Your task to perform on an android device: View the shopping cart on bestbuy. Search for "macbook" on bestbuy, select the first entry, and add it to the cart. Image 0: 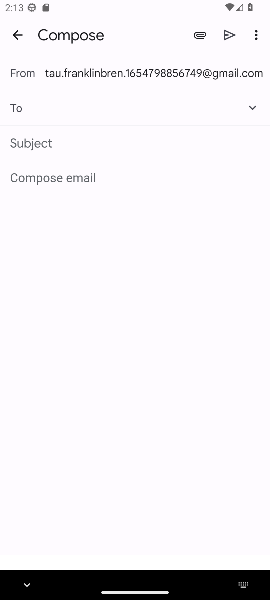
Step 0: press home button
Your task to perform on an android device: View the shopping cart on bestbuy. Search for "macbook" on bestbuy, select the first entry, and add it to the cart. Image 1: 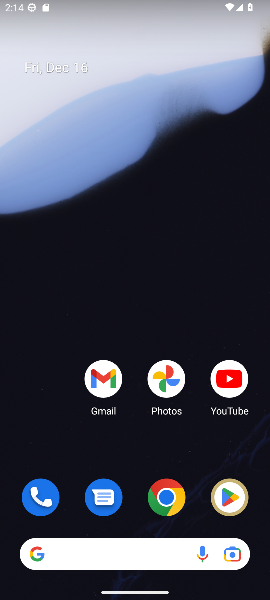
Step 1: click (176, 483)
Your task to perform on an android device: View the shopping cart on bestbuy. Search for "macbook" on bestbuy, select the first entry, and add it to the cart. Image 2: 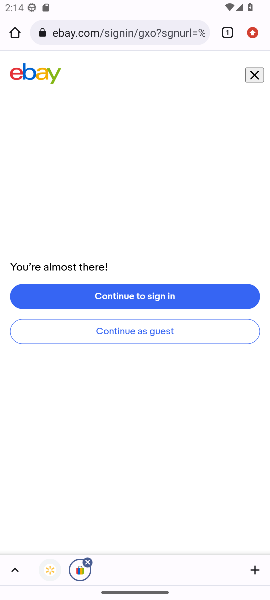
Step 2: click (157, 37)
Your task to perform on an android device: View the shopping cart on bestbuy. Search for "macbook" on bestbuy, select the first entry, and add it to the cart. Image 3: 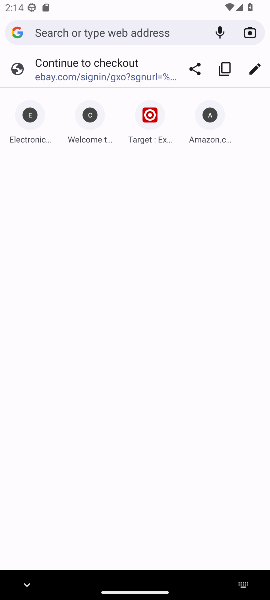
Step 3: type "bestbuy"
Your task to perform on an android device: View the shopping cart on bestbuy. Search for "macbook" on bestbuy, select the first entry, and add it to the cart. Image 4: 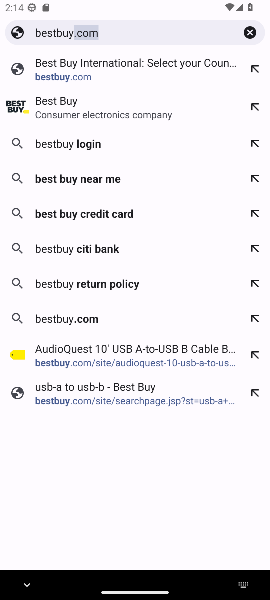
Step 4: click (109, 69)
Your task to perform on an android device: View the shopping cart on bestbuy. Search for "macbook" on bestbuy, select the first entry, and add it to the cart. Image 5: 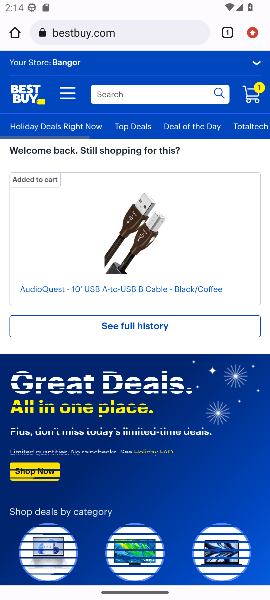
Step 5: click (162, 94)
Your task to perform on an android device: View the shopping cart on bestbuy. Search for "macbook" on bestbuy, select the first entry, and add it to the cart. Image 6: 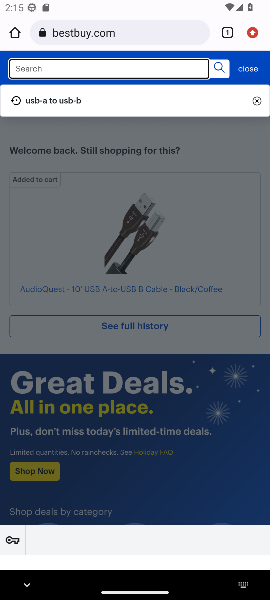
Step 6: click (109, 70)
Your task to perform on an android device: View the shopping cart on bestbuy. Search for "macbook" on bestbuy, select the first entry, and add it to the cart. Image 7: 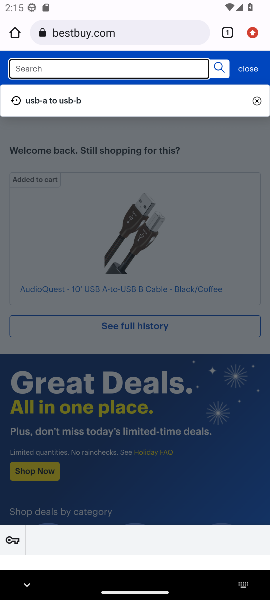
Step 7: type "macbook"
Your task to perform on an android device: View the shopping cart on bestbuy. Search for "macbook" on bestbuy, select the first entry, and add it to the cart. Image 8: 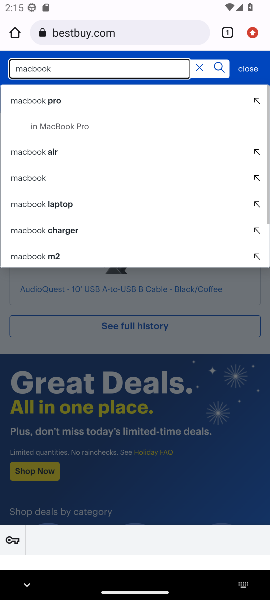
Step 8: click (41, 100)
Your task to perform on an android device: View the shopping cart on bestbuy. Search for "macbook" on bestbuy, select the first entry, and add it to the cart. Image 9: 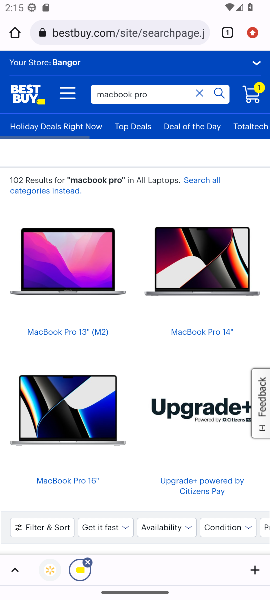
Step 9: click (73, 276)
Your task to perform on an android device: View the shopping cart on bestbuy. Search for "macbook" on bestbuy, select the first entry, and add it to the cart. Image 10: 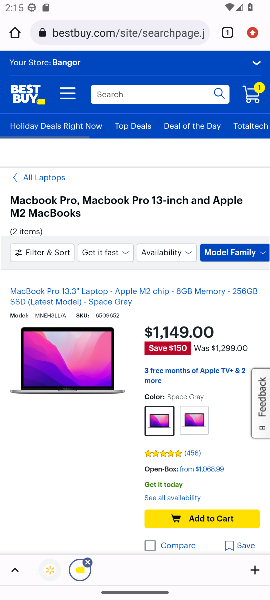
Step 10: click (215, 516)
Your task to perform on an android device: View the shopping cart on bestbuy. Search for "macbook" on bestbuy, select the first entry, and add it to the cart. Image 11: 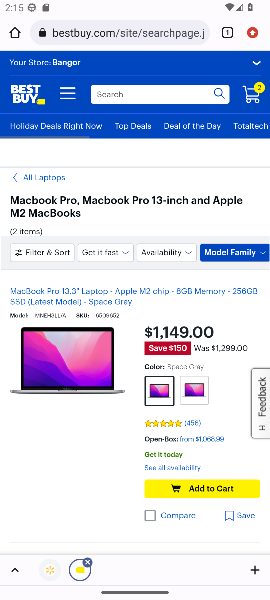
Step 11: task complete